Your task to perform on an android device: Open Youtube and go to "Your channel" Image 0: 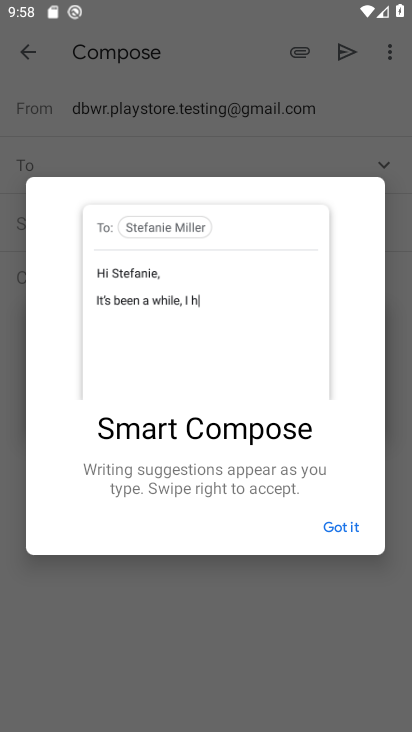
Step 0: press back button
Your task to perform on an android device: Open Youtube and go to "Your channel" Image 1: 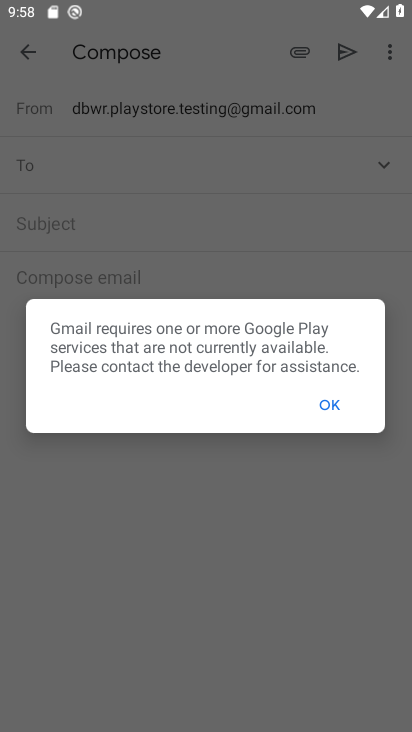
Step 1: press home button
Your task to perform on an android device: Open Youtube and go to "Your channel" Image 2: 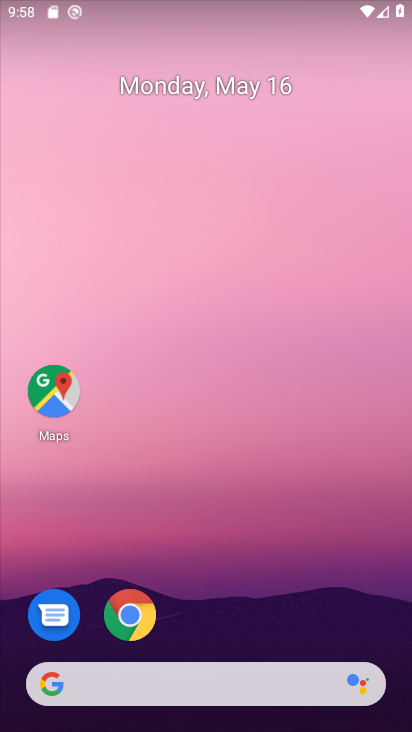
Step 2: drag from (251, 549) to (189, 31)
Your task to perform on an android device: Open Youtube and go to "Your channel" Image 3: 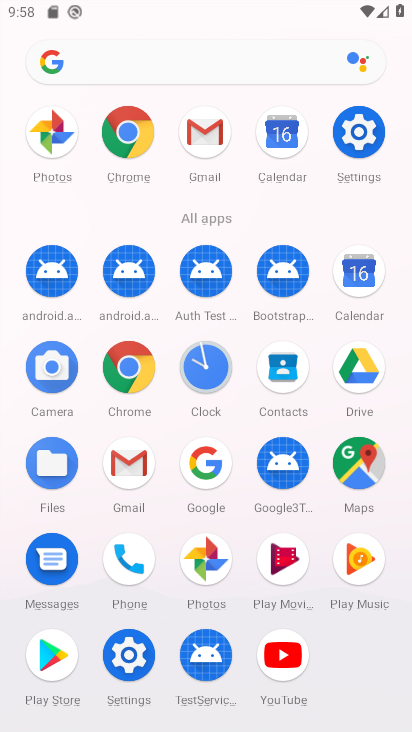
Step 3: click (276, 648)
Your task to perform on an android device: Open Youtube and go to "Your channel" Image 4: 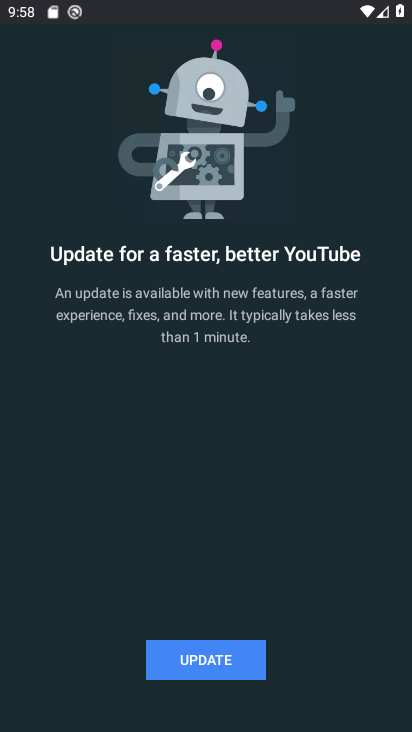
Step 4: click (192, 659)
Your task to perform on an android device: Open Youtube and go to "Your channel" Image 5: 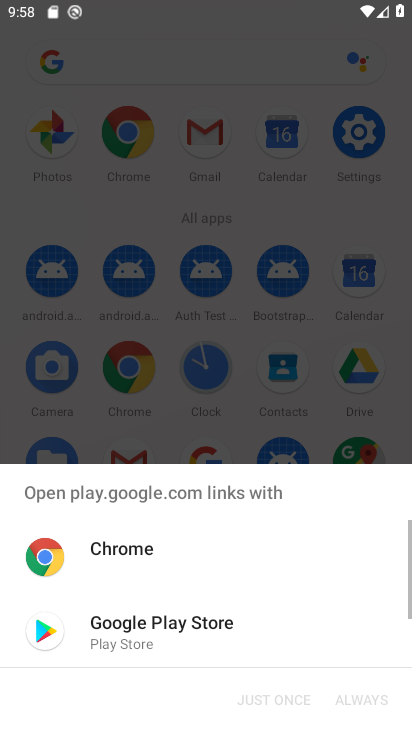
Step 5: click (193, 636)
Your task to perform on an android device: Open Youtube and go to "Your channel" Image 6: 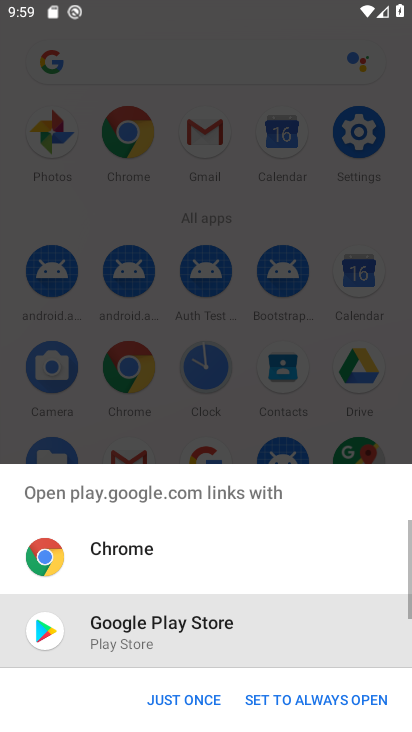
Step 6: click (209, 694)
Your task to perform on an android device: Open Youtube and go to "Your channel" Image 7: 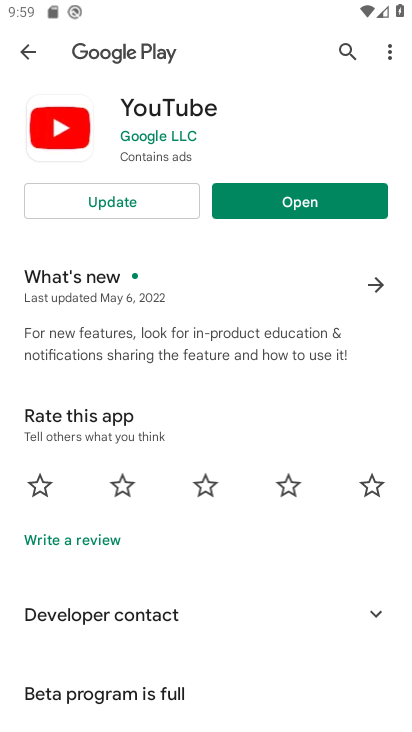
Step 7: click (136, 200)
Your task to perform on an android device: Open Youtube and go to "Your channel" Image 8: 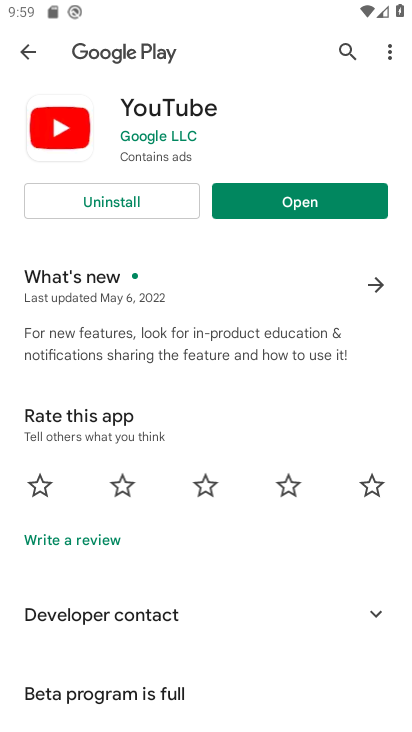
Step 8: click (291, 199)
Your task to perform on an android device: Open Youtube and go to "Your channel" Image 9: 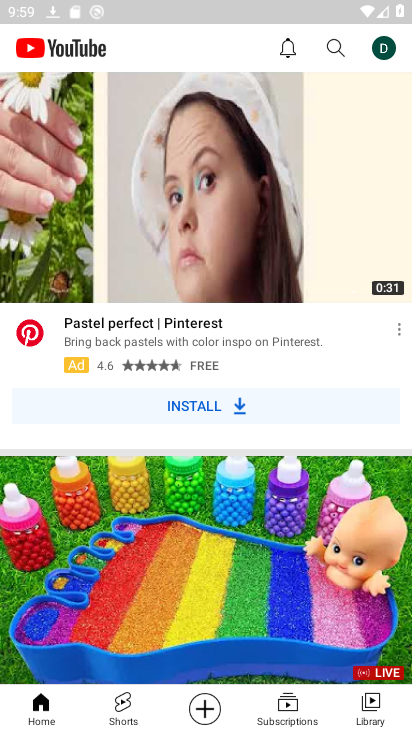
Step 9: click (380, 704)
Your task to perform on an android device: Open Youtube and go to "Your channel" Image 10: 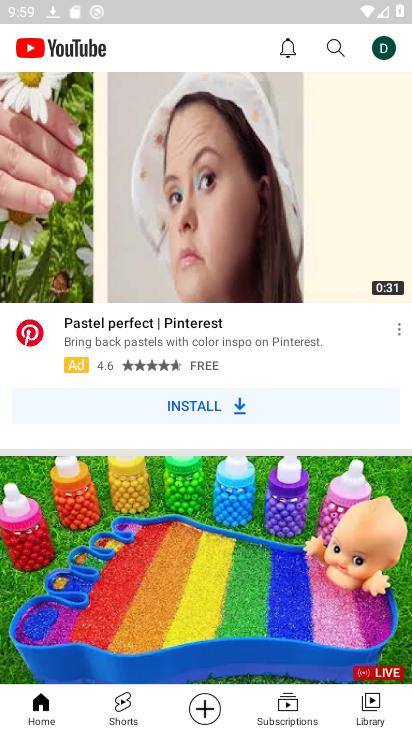
Step 10: click (380, 704)
Your task to perform on an android device: Open Youtube and go to "Your channel" Image 11: 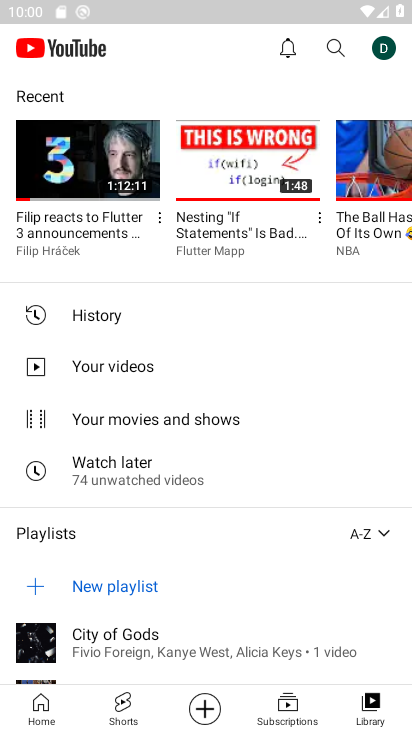
Step 11: click (108, 357)
Your task to perform on an android device: Open Youtube and go to "Your channel" Image 12: 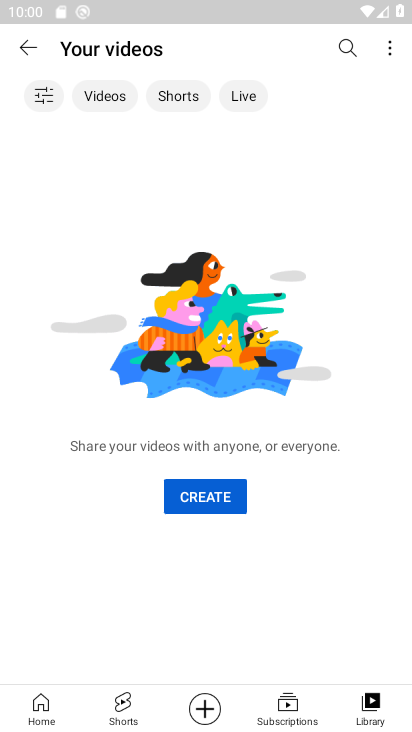
Step 12: click (31, 45)
Your task to perform on an android device: Open Youtube and go to "Your channel" Image 13: 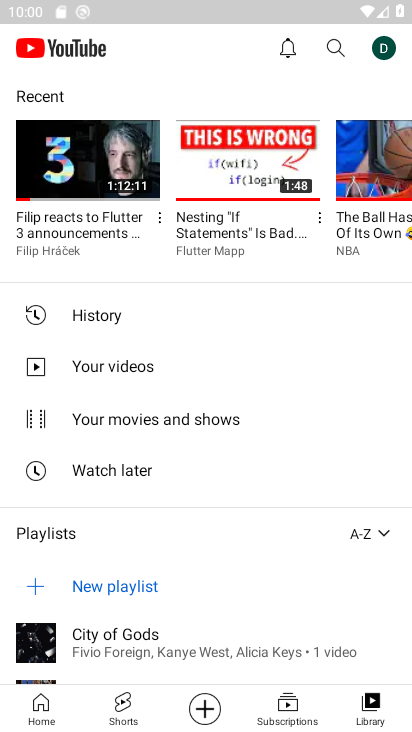
Step 13: click (353, 715)
Your task to perform on an android device: Open Youtube and go to "Your channel" Image 14: 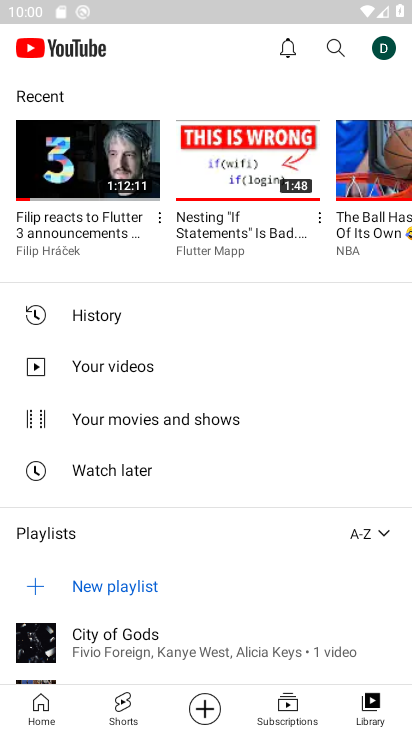
Step 14: click (350, 714)
Your task to perform on an android device: Open Youtube and go to "Your channel" Image 15: 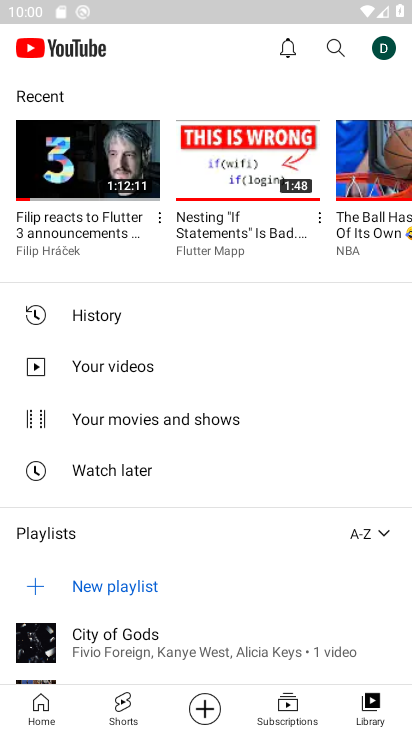
Step 15: drag from (271, 541) to (279, 246)
Your task to perform on an android device: Open Youtube and go to "Your channel" Image 16: 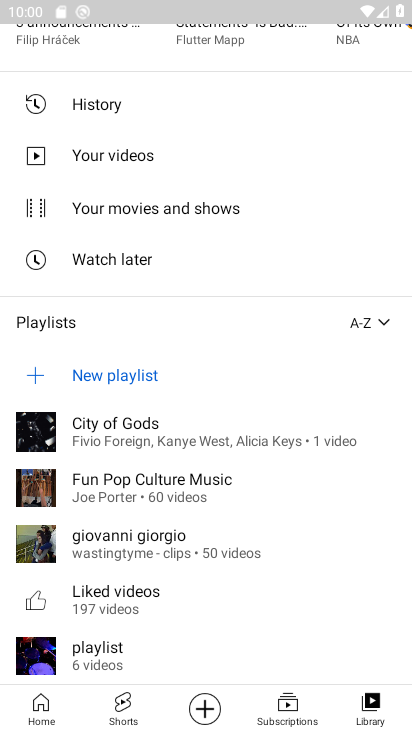
Step 16: drag from (242, 612) to (261, 256)
Your task to perform on an android device: Open Youtube and go to "Your channel" Image 17: 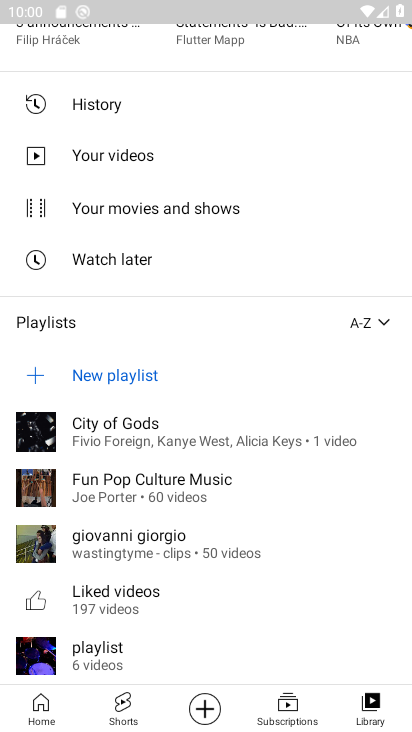
Step 17: drag from (216, 618) to (198, 354)
Your task to perform on an android device: Open Youtube and go to "Your channel" Image 18: 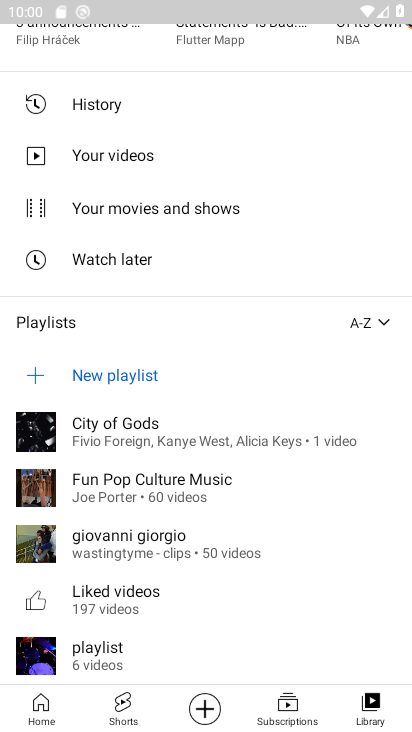
Step 18: drag from (210, 262) to (234, 504)
Your task to perform on an android device: Open Youtube and go to "Your channel" Image 19: 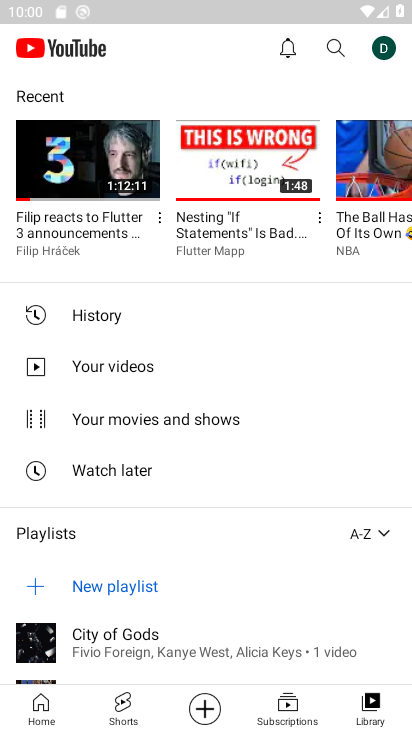
Step 19: click (138, 358)
Your task to perform on an android device: Open Youtube and go to "Your channel" Image 20: 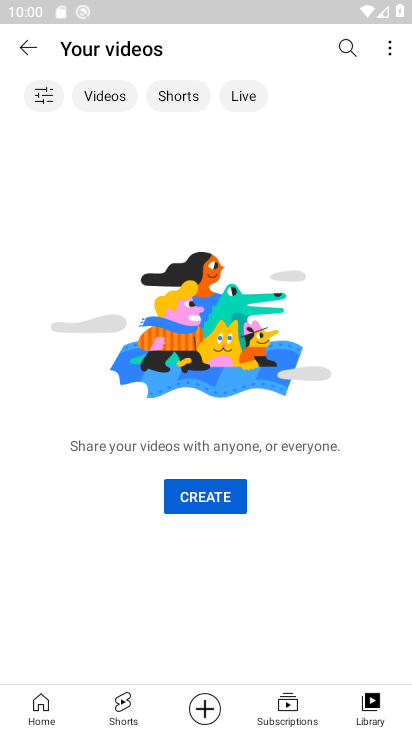
Step 20: task complete